Your task to perform on an android device: Check the news Image 0: 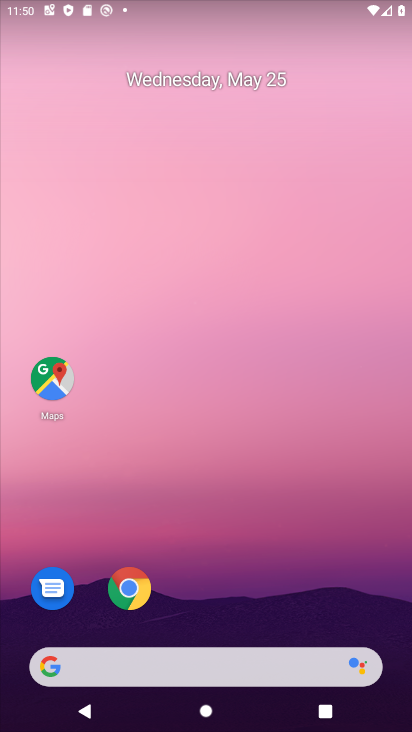
Step 0: drag from (251, 558) to (228, 22)
Your task to perform on an android device: Check the news Image 1: 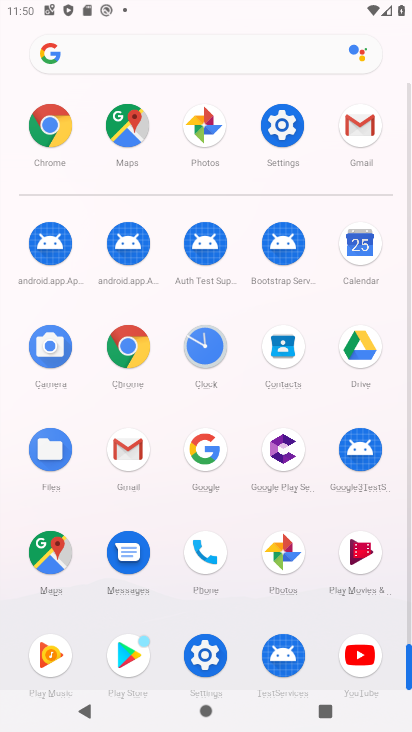
Step 1: drag from (19, 578) to (21, 203)
Your task to perform on an android device: Check the news Image 2: 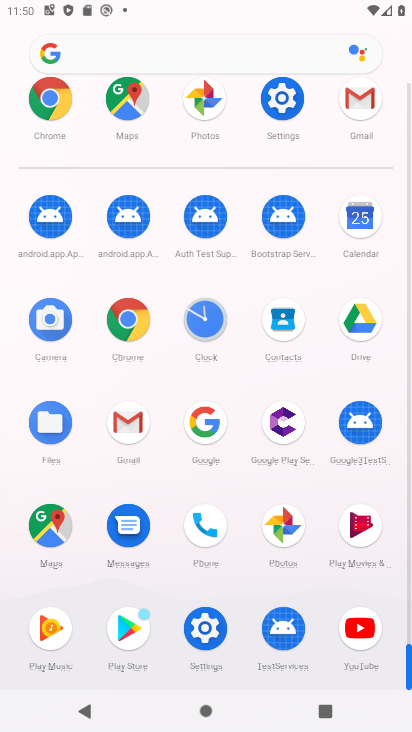
Step 2: click (129, 321)
Your task to perform on an android device: Check the news Image 3: 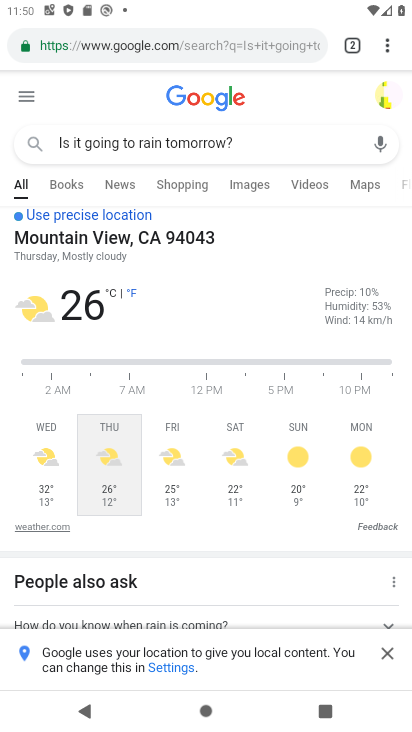
Step 3: click (206, 49)
Your task to perform on an android device: Check the news Image 4: 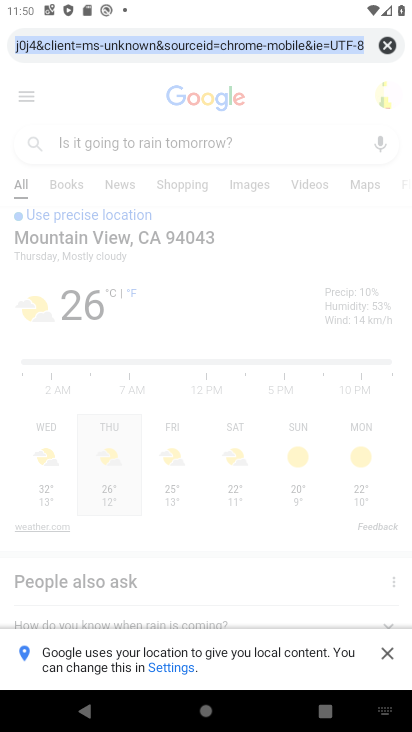
Step 4: click (382, 44)
Your task to perform on an android device: Check the news Image 5: 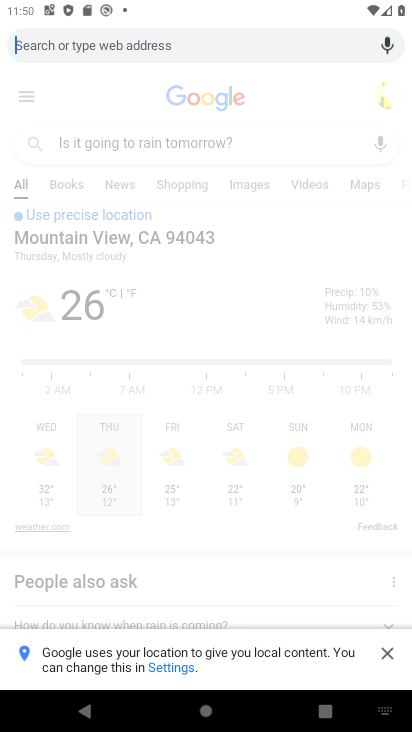
Step 5: type "Check the news"
Your task to perform on an android device: Check the news Image 6: 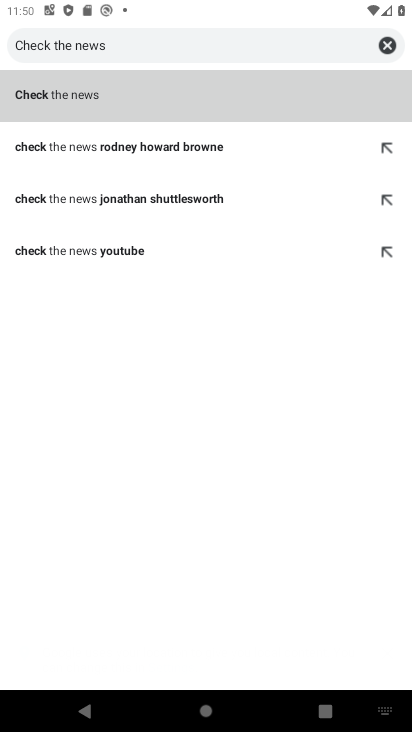
Step 6: click (129, 97)
Your task to perform on an android device: Check the news Image 7: 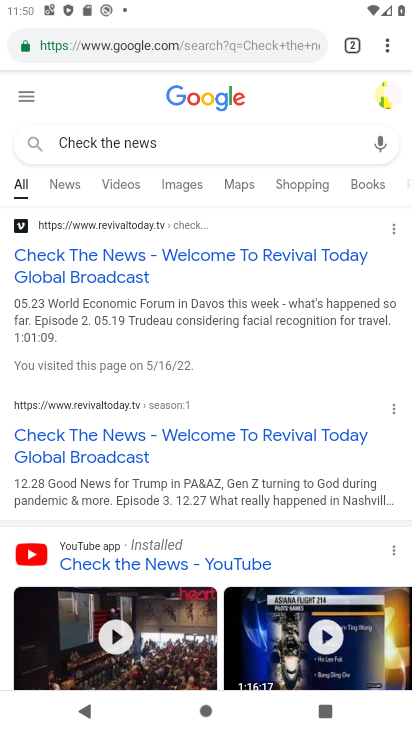
Step 7: click (61, 183)
Your task to perform on an android device: Check the news Image 8: 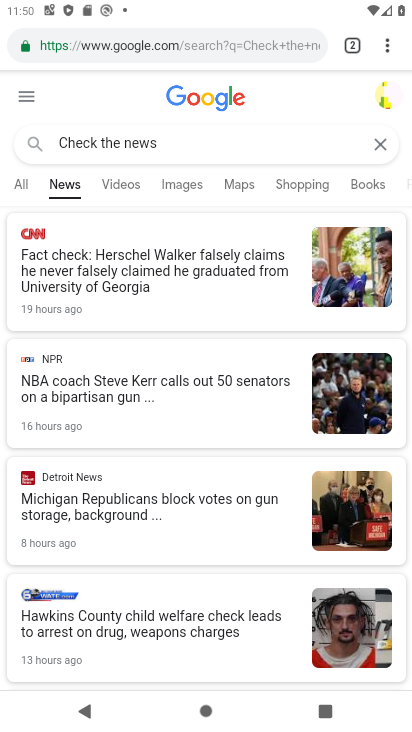
Step 8: task complete